Your task to perform on an android device: Open my contact list Image 0: 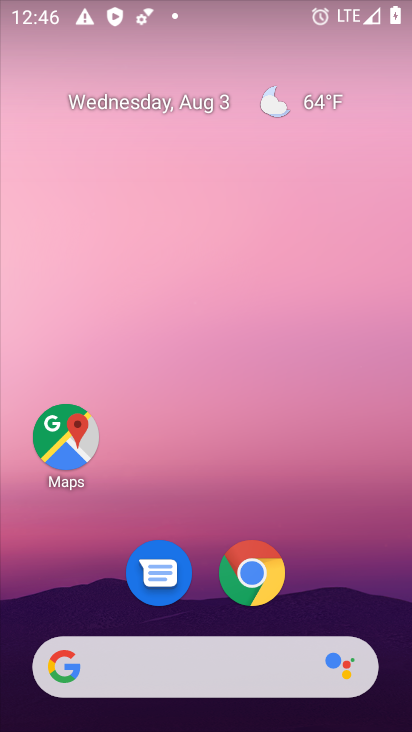
Step 0: drag from (174, 638) to (165, 126)
Your task to perform on an android device: Open my contact list Image 1: 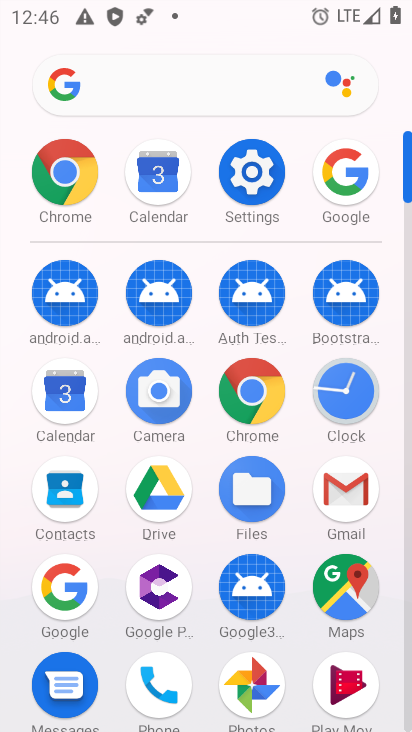
Step 1: click (73, 490)
Your task to perform on an android device: Open my contact list Image 2: 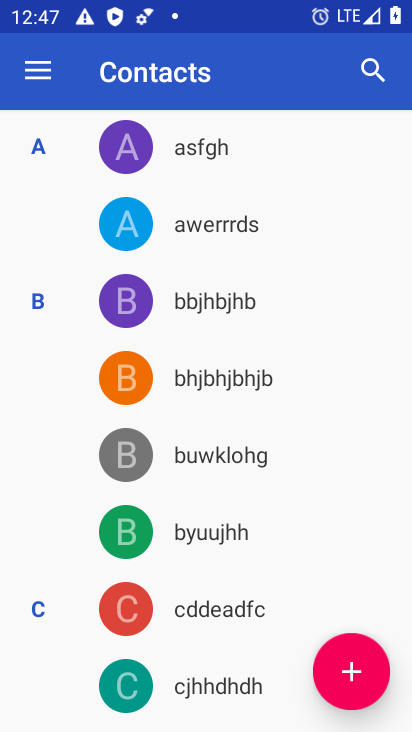
Step 2: task complete